Your task to perform on an android device: Turn on the flashlight Image 0: 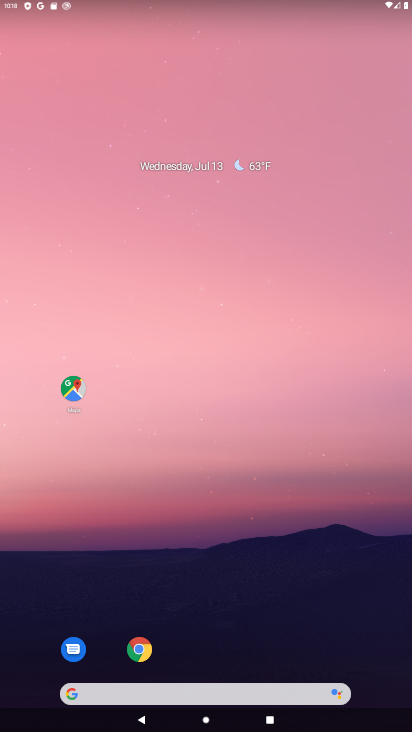
Step 0: drag from (177, 631) to (184, 119)
Your task to perform on an android device: Turn on the flashlight Image 1: 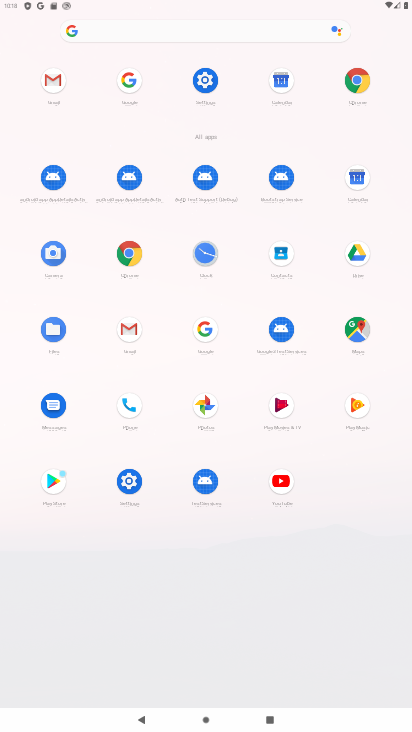
Step 1: click (193, 79)
Your task to perform on an android device: Turn on the flashlight Image 2: 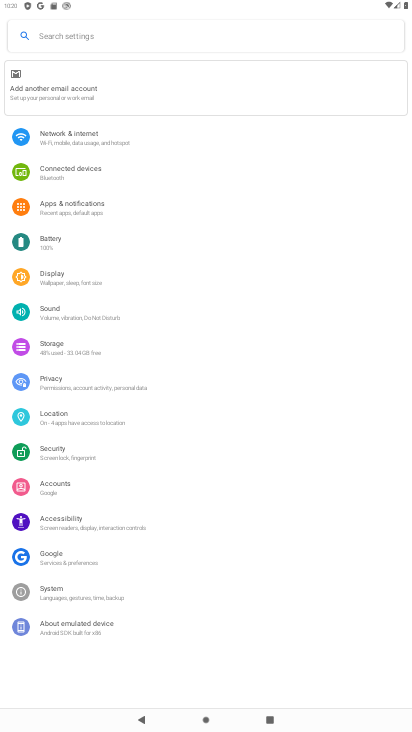
Step 2: task complete